Your task to perform on an android device: change your default location settings in chrome Image 0: 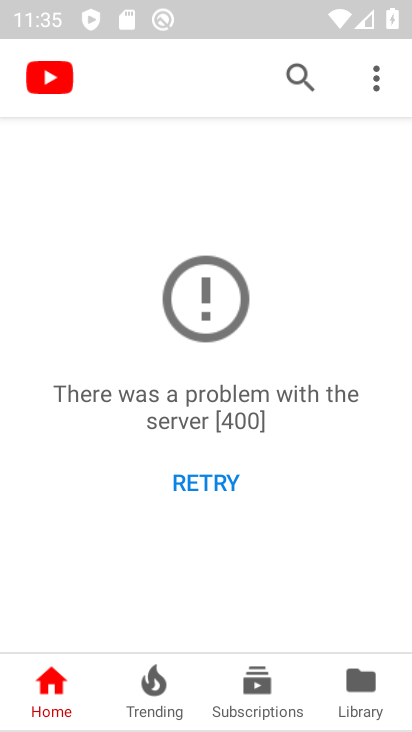
Step 0: press home button
Your task to perform on an android device: change your default location settings in chrome Image 1: 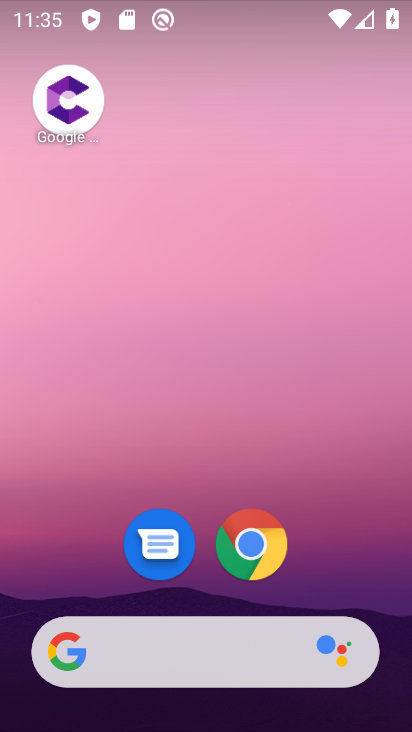
Step 1: click (259, 544)
Your task to perform on an android device: change your default location settings in chrome Image 2: 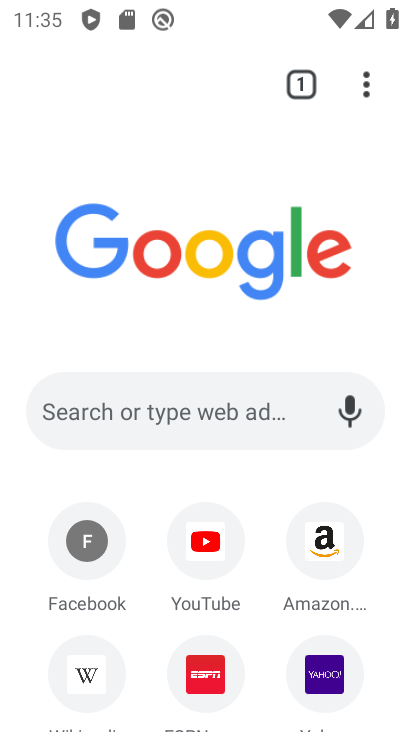
Step 2: drag from (366, 76) to (167, 597)
Your task to perform on an android device: change your default location settings in chrome Image 3: 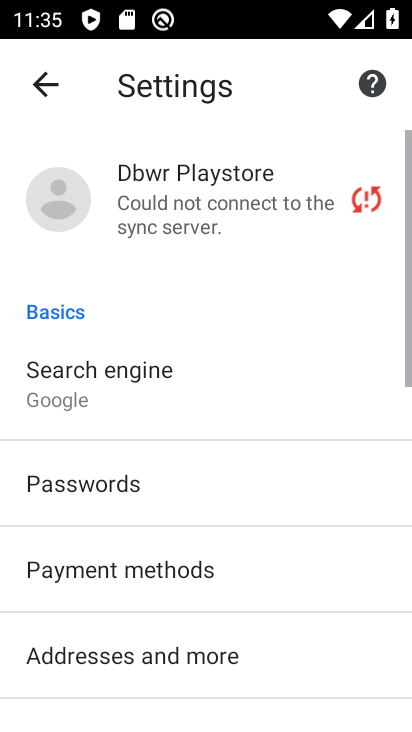
Step 3: drag from (167, 597) to (193, 74)
Your task to perform on an android device: change your default location settings in chrome Image 4: 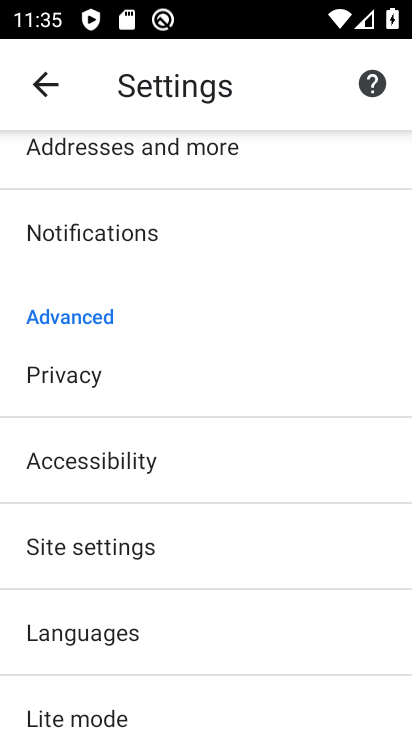
Step 4: click (130, 542)
Your task to perform on an android device: change your default location settings in chrome Image 5: 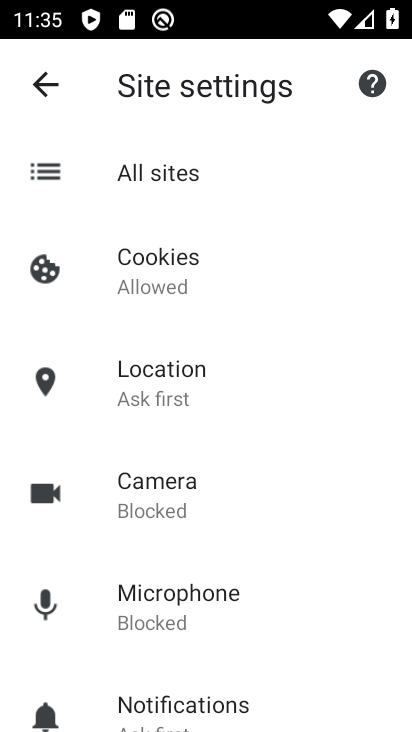
Step 5: click (165, 384)
Your task to perform on an android device: change your default location settings in chrome Image 6: 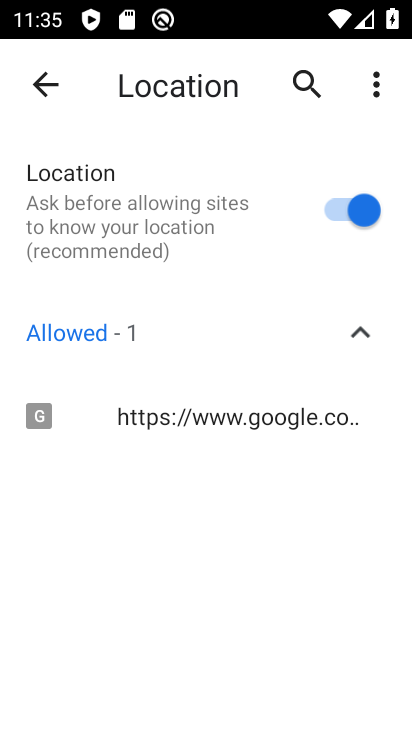
Step 6: click (331, 202)
Your task to perform on an android device: change your default location settings in chrome Image 7: 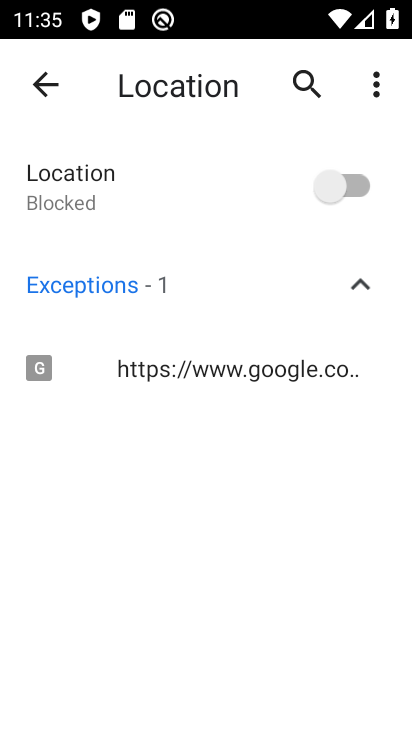
Step 7: task complete